Your task to perform on an android device: Open the stopwatch Image 0: 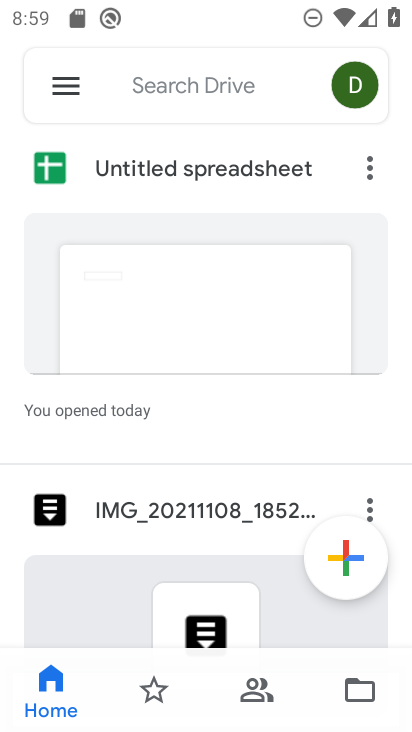
Step 0: press home button
Your task to perform on an android device: Open the stopwatch Image 1: 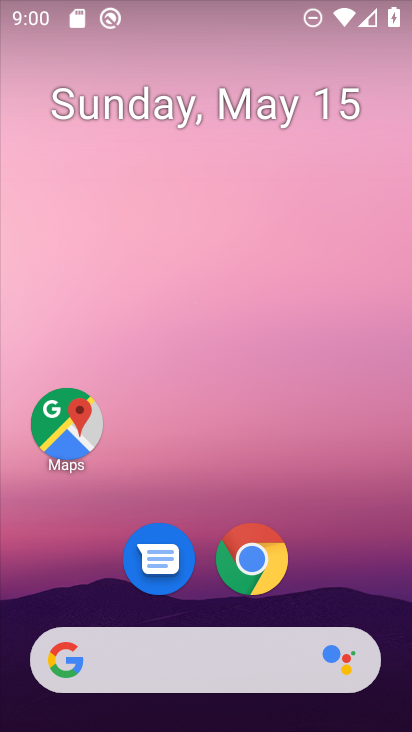
Step 1: drag from (340, 549) to (326, 46)
Your task to perform on an android device: Open the stopwatch Image 2: 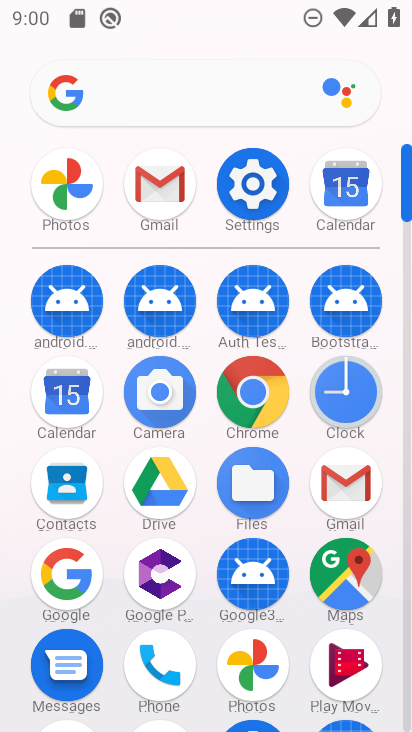
Step 2: click (338, 401)
Your task to perform on an android device: Open the stopwatch Image 3: 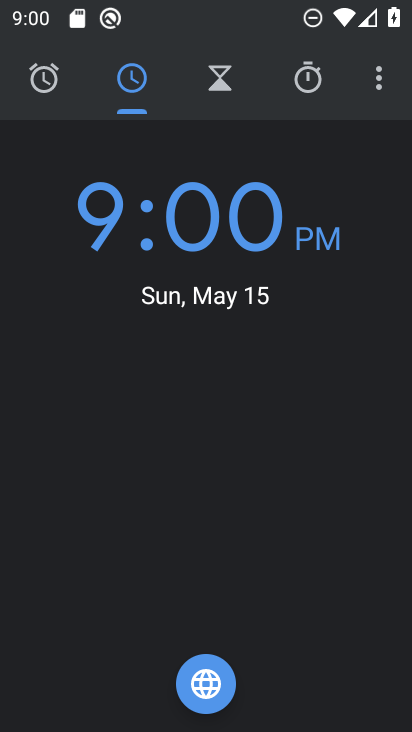
Step 3: click (324, 95)
Your task to perform on an android device: Open the stopwatch Image 4: 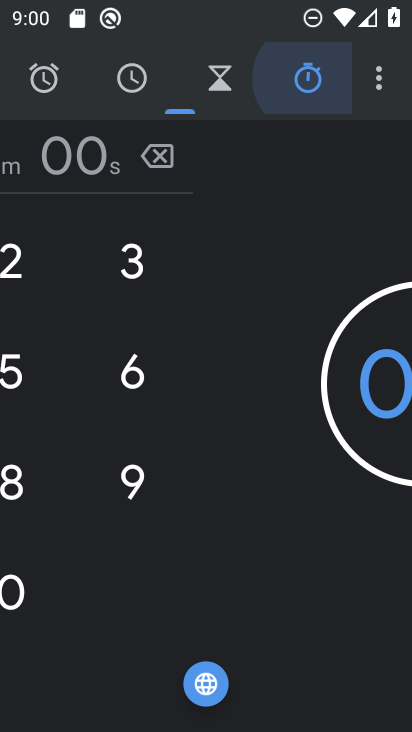
Step 4: task complete